Your task to perform on an android device: change notification settings in the gmail app Image 0: 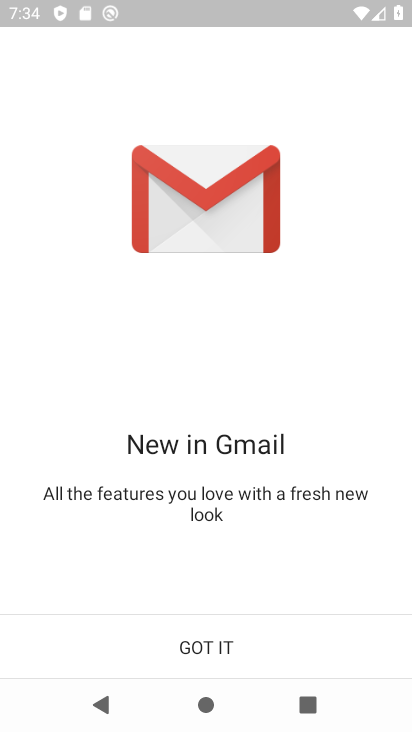
Step 0: click (283, 654)
Your task to perform on an android device: change notification settings in the gmail app Image 1: 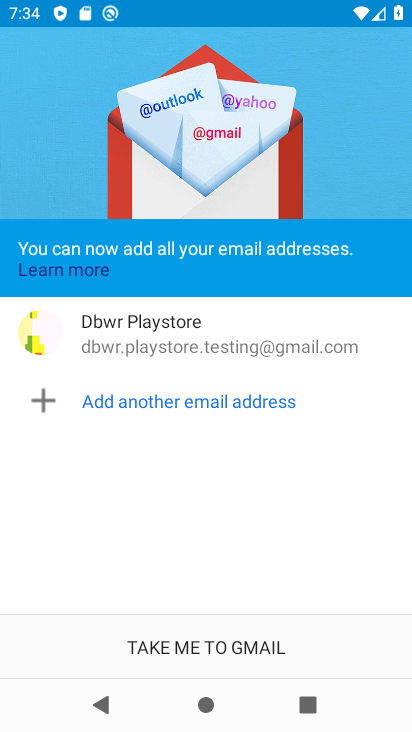
Step 1: click (162, 641)
Your task to perform on an android device: change notification settings in the gmail app Image 2: 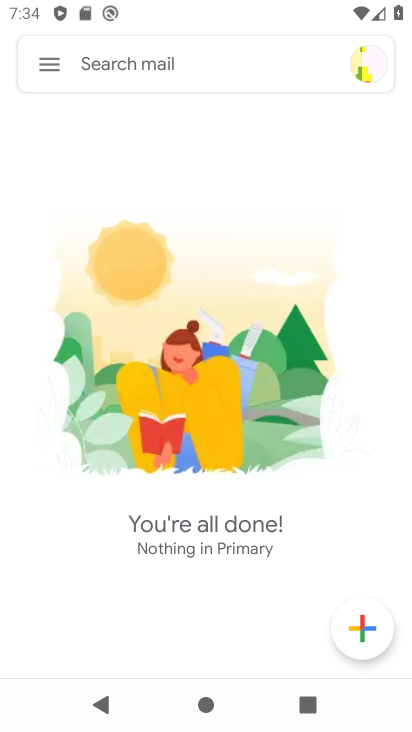
Step 2: click (55, 74)
Your task to perform on an android device: change notification settings in the gmail app Image 3: 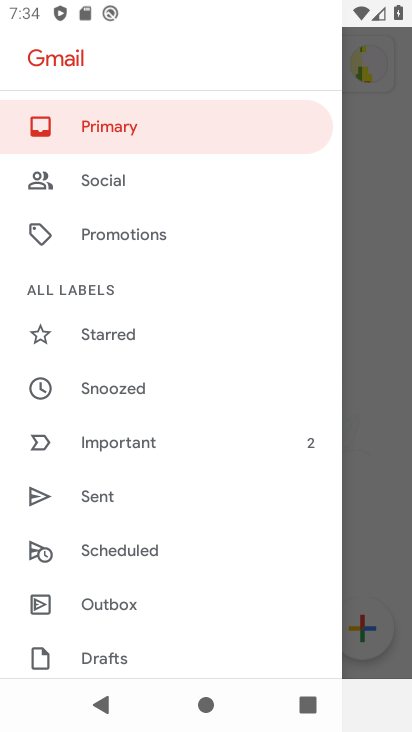
Step 3: drag from (155, 555) to (147, 119)
Your task to perform on an android device: change notification settings in the gmail app Image 4: 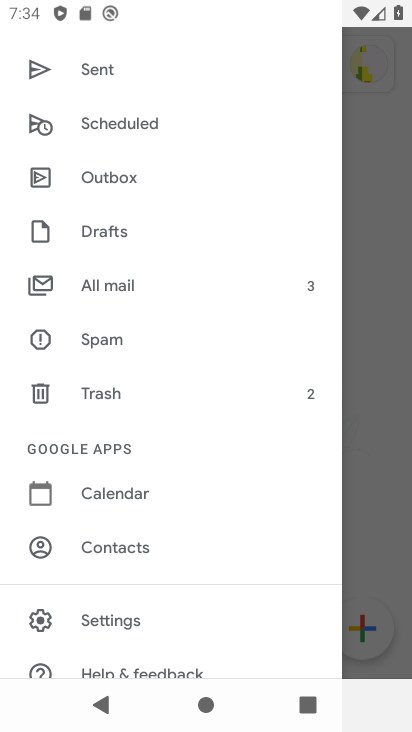
Step 4: click (136, 601)
Your task to perform on an android device: change notification settings in the gmail app Image 5: 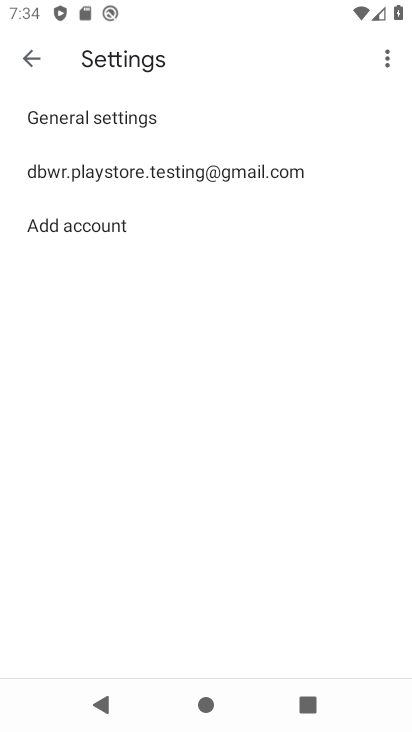
Step 5: click (191, 118)
Your task to perform on an android device: change notification settings in the gmail app Image 6: 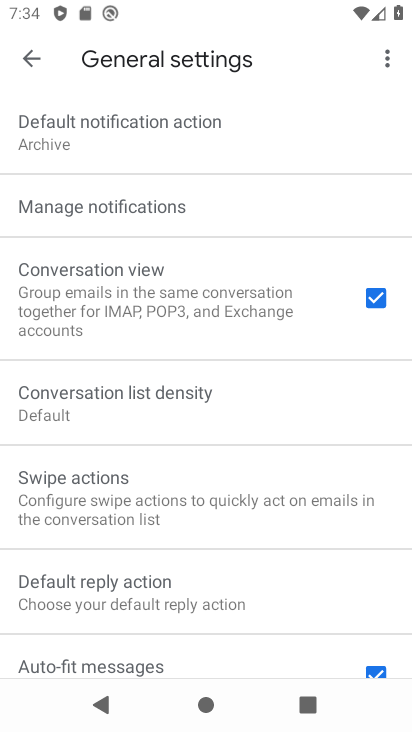
Step 6: click (173, 217)
Your task to perform on an android device: change notification settings in the gmail app Image 7: 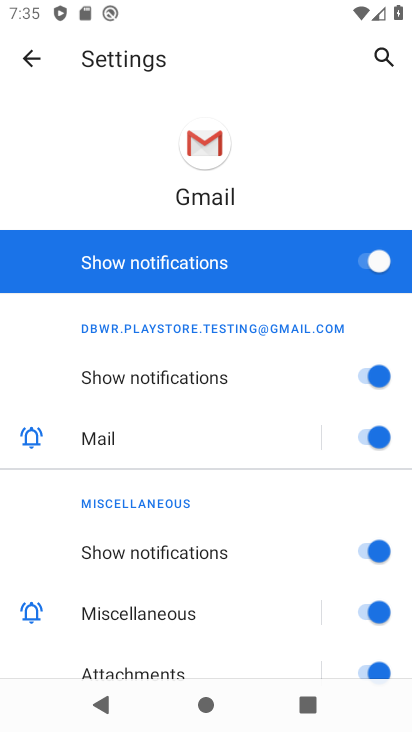
Step 7: click (173, 371)
Your task to perform on an android device: change notification settings in the gmail app Image 8: 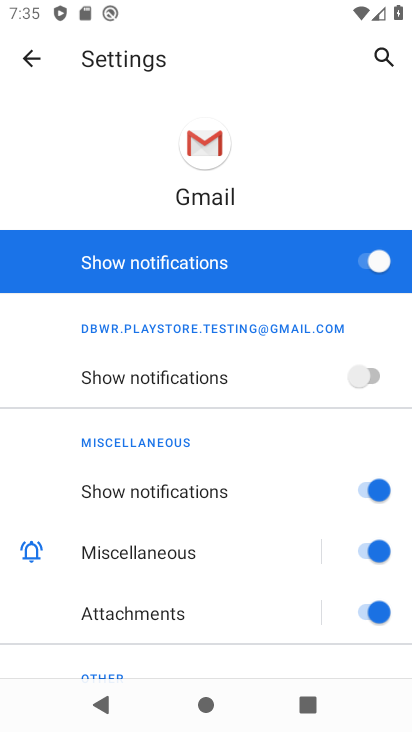
Step 8: task complete